Your task to perform on an android device: toggle sleep mode Image 0: 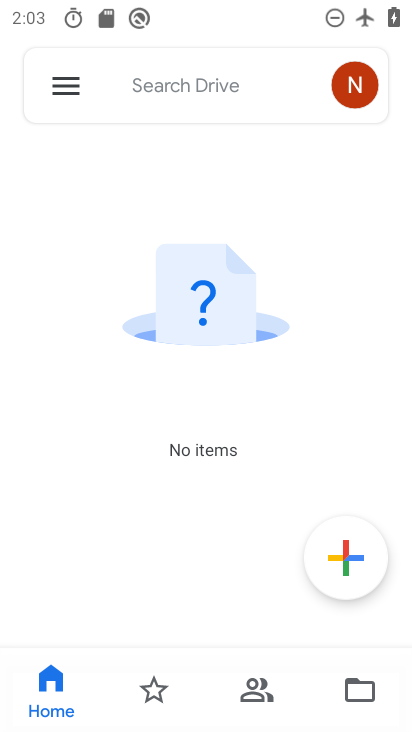
Step 0: drag from (231, 605) to (302, 400)
Your task to perform on an android device: toggle sleep mode Image 1: 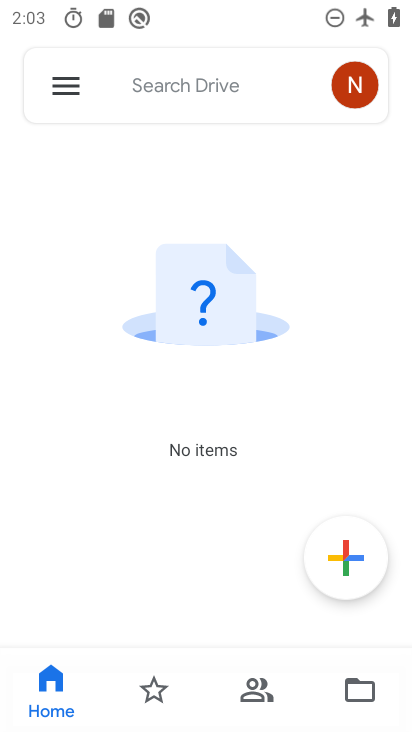
Step 1: press home button
Your task to perform on an android device: toggle sleep mode Image 2: 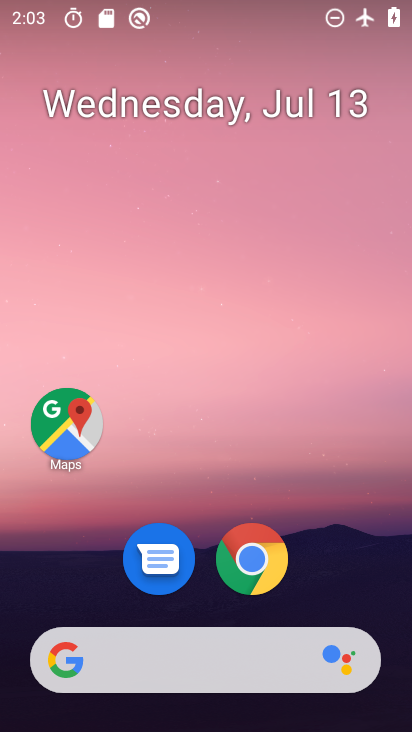
Step 2: drag from (221, 605) to (326, 244)
Your task to perform on an android device: toggle sleep mode Image 3: 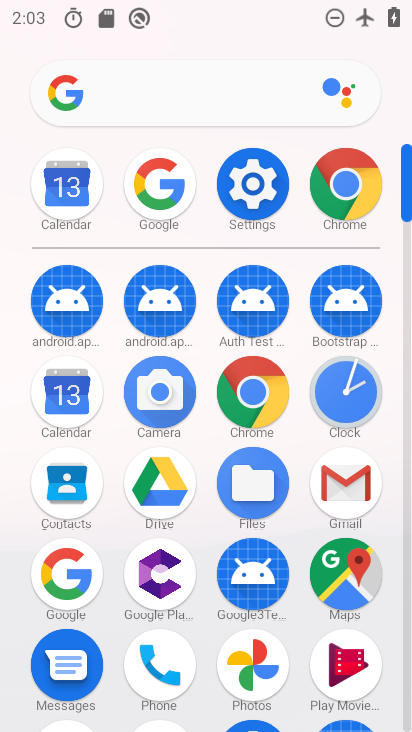
Step 3: click (257, 190)
Your task to perform on an android device: toggle sleep mode Image 4: 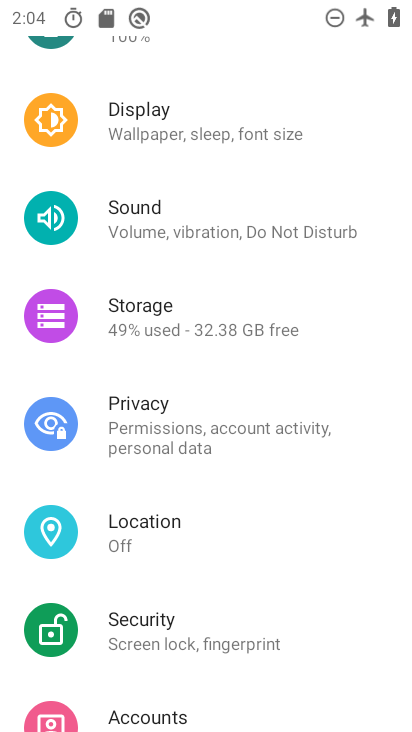
Step 4: click (189, 137)
Your task to perform on an android device: toggle sleep mode Image 5: 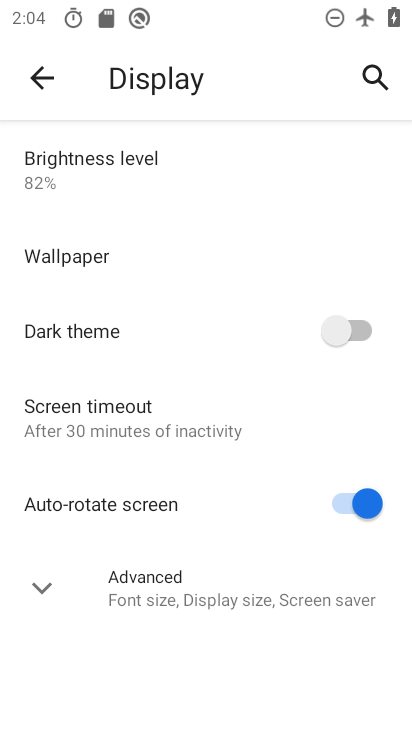
Step 5: click (110, 615)
Your task to perform on an android device: toggle sleep mode Image 6: 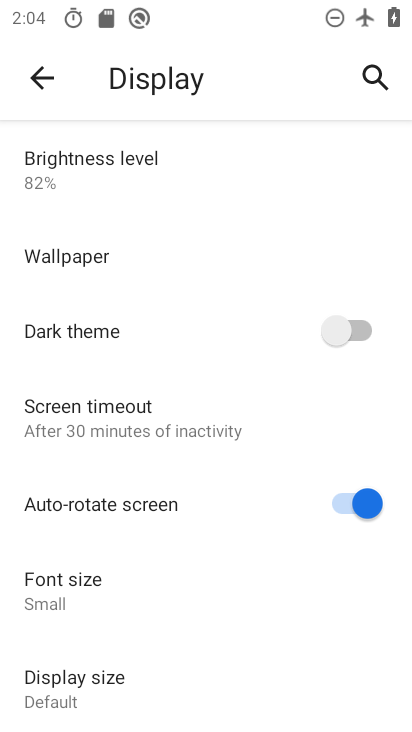
Step 6: task complete